Your task to perform on an android device: What's the weather going to be this weekend? Image 0: 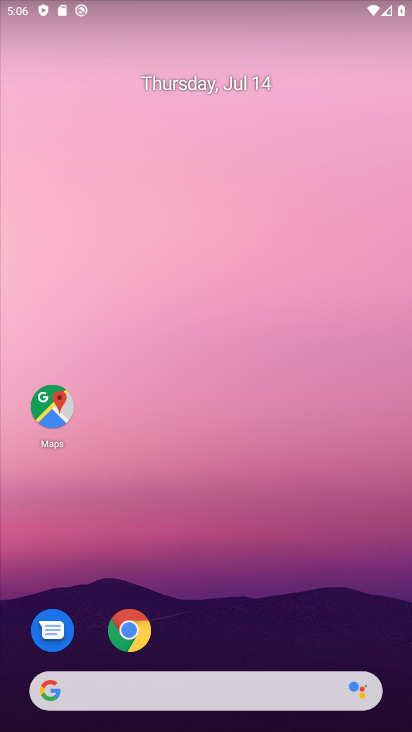
Step 0: press home button
Your task to perform on an android device: What's the weather going to be this weekend? Image 1: 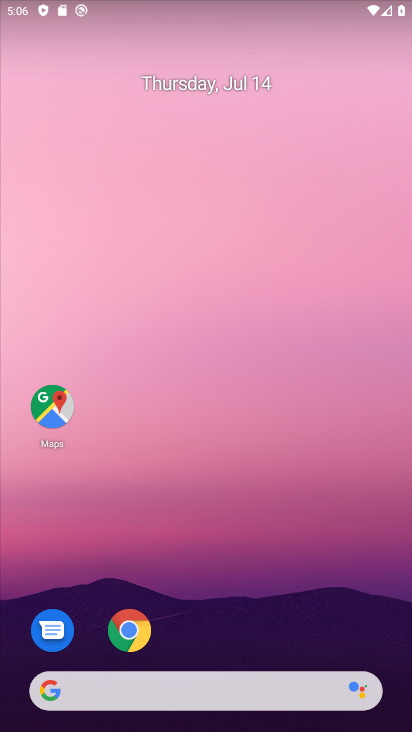
Step 1: click (54, 686)
Your task to perform on an android device: What's the weather going to be this weekend? Image 2: 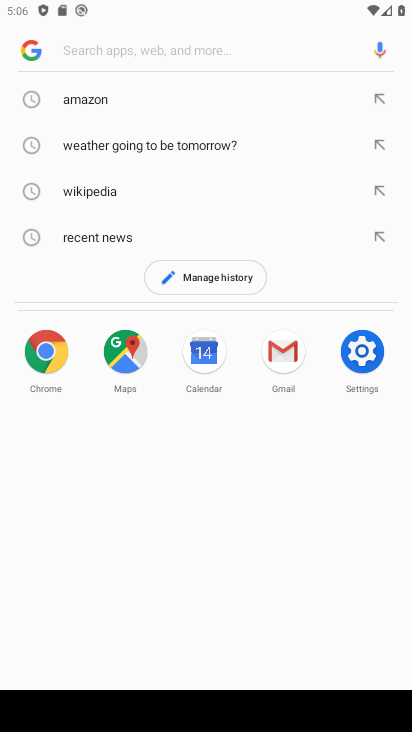
Step 2: type "weather going to be this weekend?"
Your task to perform on an android device: What's the weather going to be this weekend? Image 3: 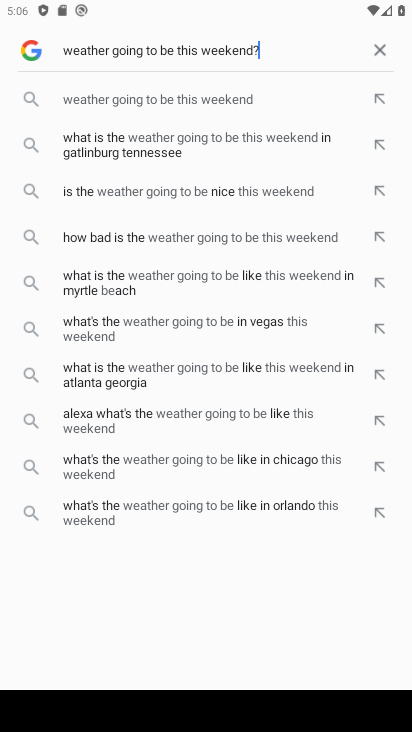
Step 3: press enter
Your task to perform on an android device: What's the weather going to be this weekend? Image 4: 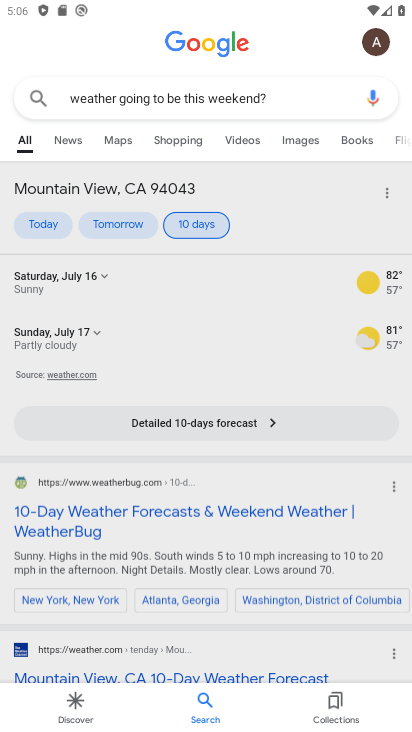
Step 4: task complete